Your task to perform on an android device: Open Youtube and go to the subscriptions tab Image 0: 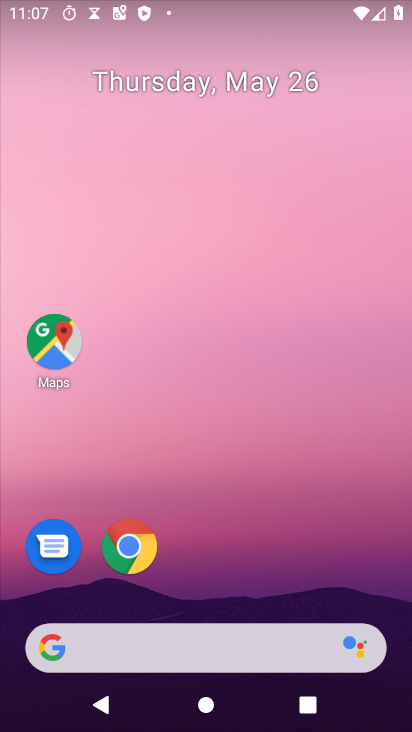
Step 0: drag from (329, 561) to (350, 213)
Your task to perform on an android device: Open Youtube and go to the subscriptions tab Image 1: 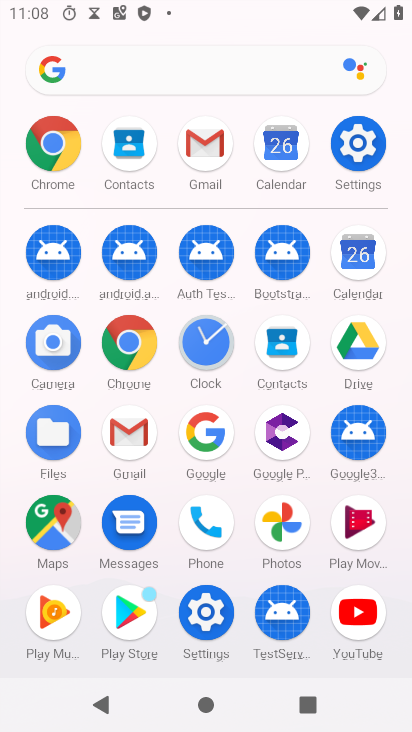
Step 1: click (352, 625)
Your task to perform on an android device: Open Youtube and go to the subscriptions tab Image 2: 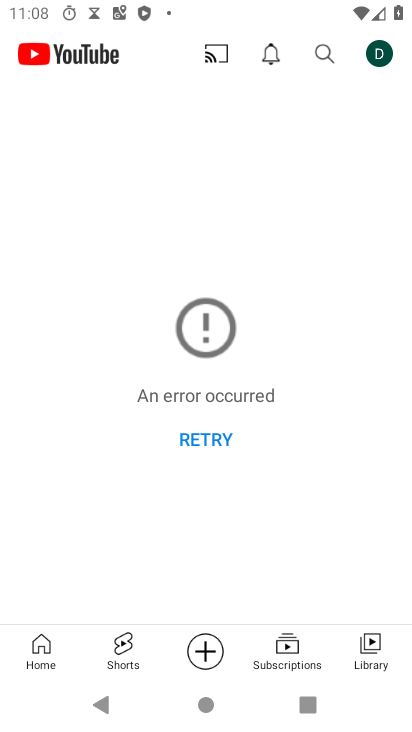
Step 2: click (303, 659)
Your task to perform on an android device: Open Youtube and go to the subscriptions tab Image 3: 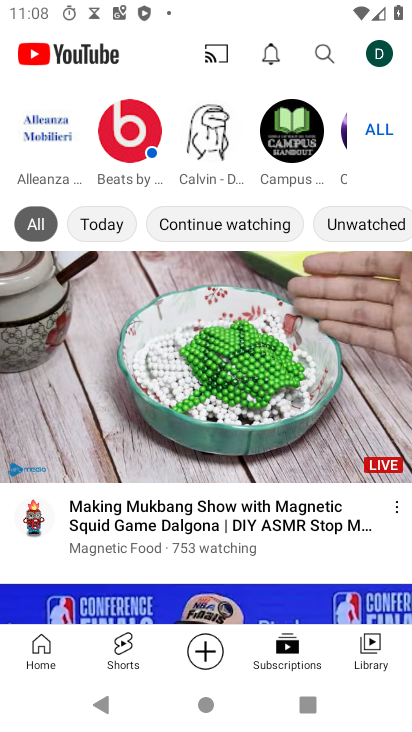
Step 3: task complete